Your task to perform on an android device: change notifications settings Image 0: 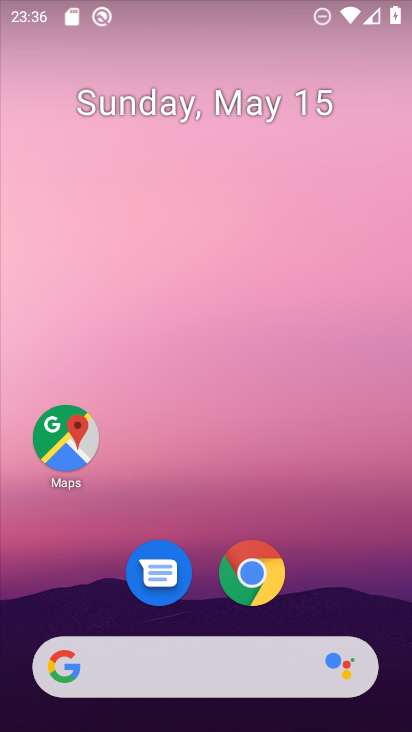
Step 0: drag from (382, 569) to (267, 50)
Your task to perform on an android device: change notifications settings Image 1: 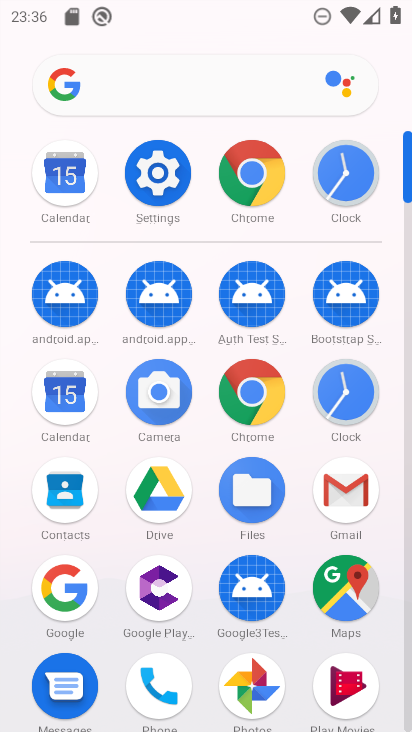
Step 1: click (159, 165)
Your task to perform on an android device: change notifications settings Image 2: 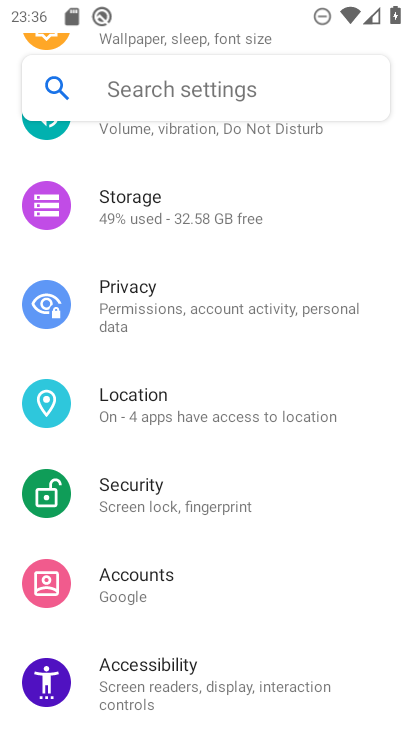
Step 2: drag from (179, 169) to (350, 725)
Your task to perform on an android device: change notifications settings Image 3: 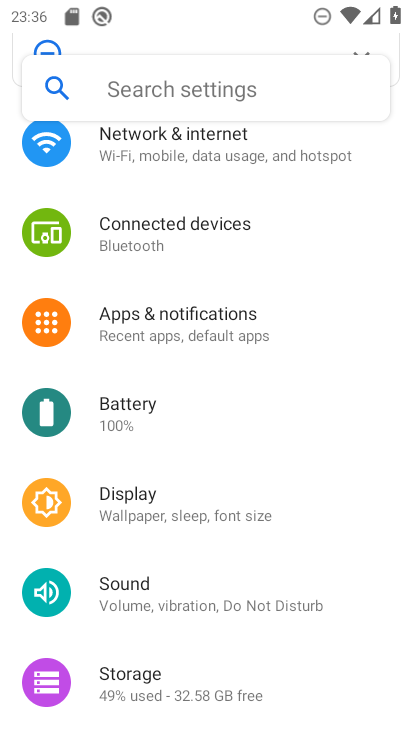
Step 3: click (225, 333)
Your task to perform on an android device: change notifications settings Image 4: 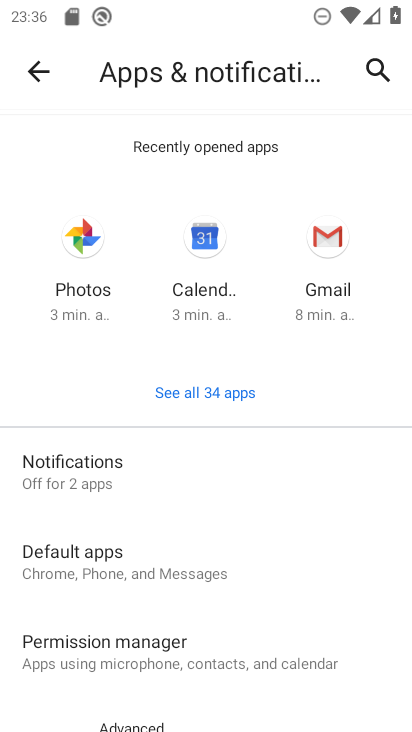
Step 4: click (61, 473)
Your task to perform on an android device: change notifications settings Image 5: 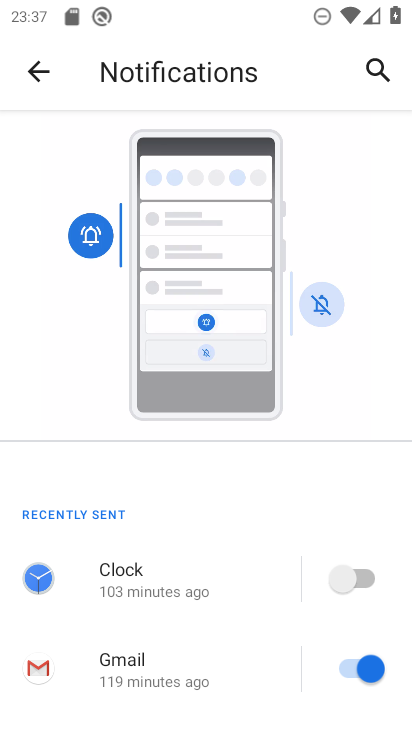
Step 5: drag from (292, 667) to (281, 400)
Your task to perform on an android device: change notifications settings Image 6: 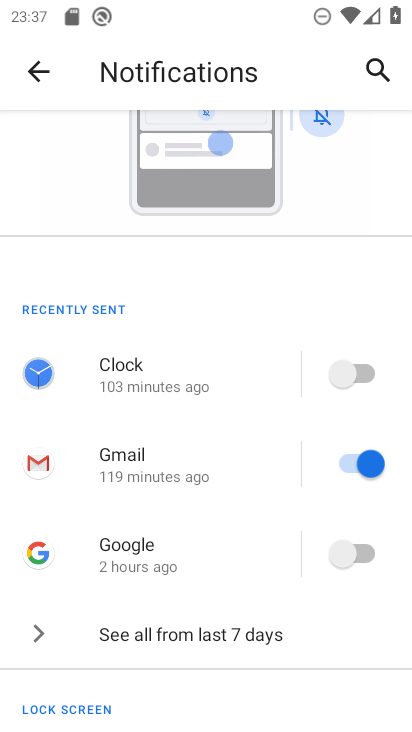
Step 6: drag from (209, 597) to (214, 94)
Your task to perform on an android device: change notifications settings Image 7: 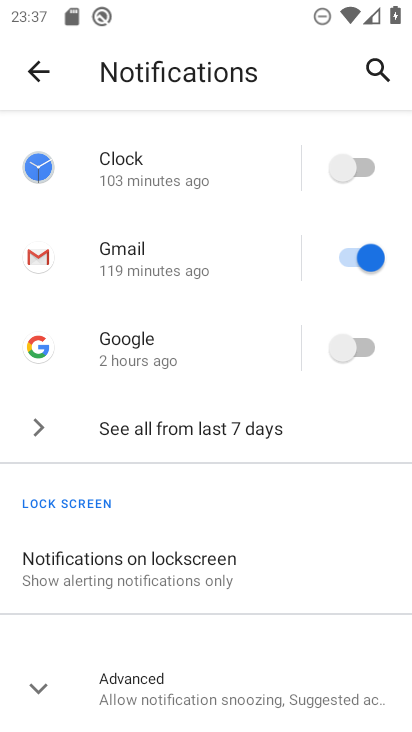
Step 7: click (368, 174)
Your task to perform on an android device: change notifications settings Image 8: 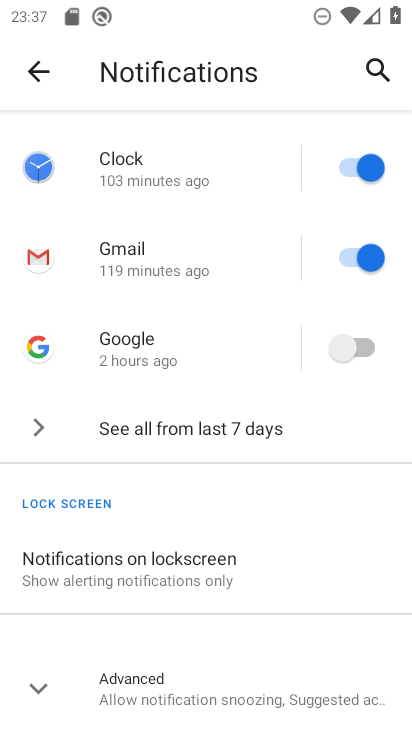
Step 8: click (162, 697)
Your task to perform on an android device: change notifications settings Image 9: 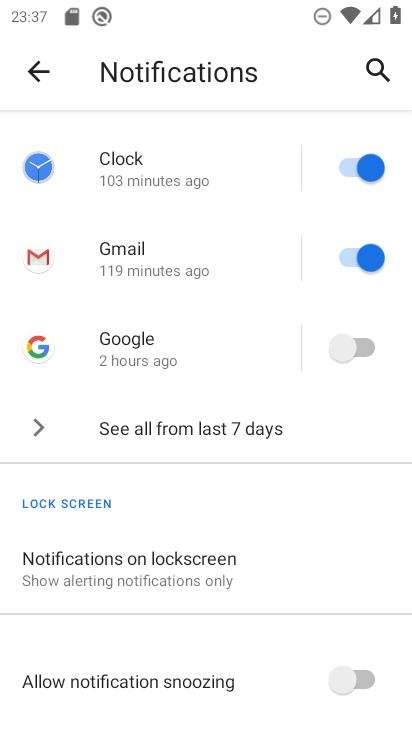
Step 9: click (327, 689)
Your task to perform on an android device: change notifications settings Image 10: 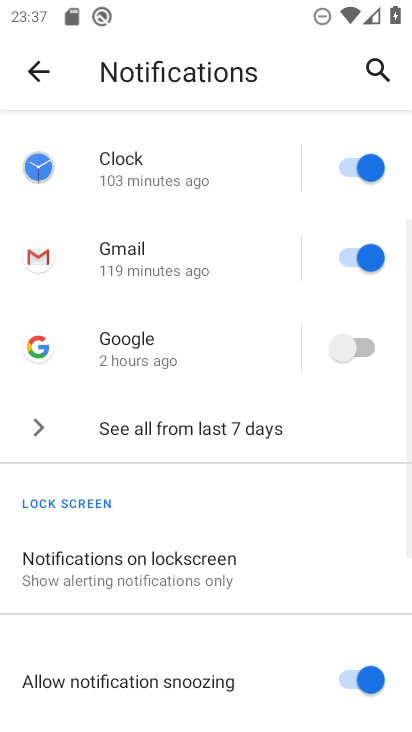
Step 10: task complete